Your task to perform on an android device: open a new tab in the chrome app Image 0: 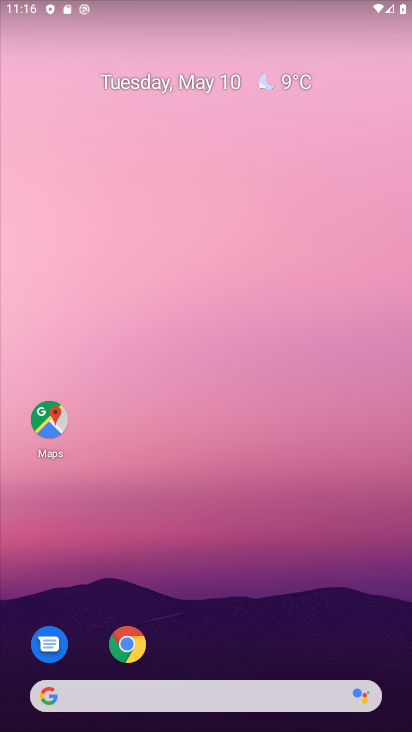
Step 0: drag from (279, 669) to (325, 123)
Your task to perform on an android device: open a new tab in the chrome app Image 1: 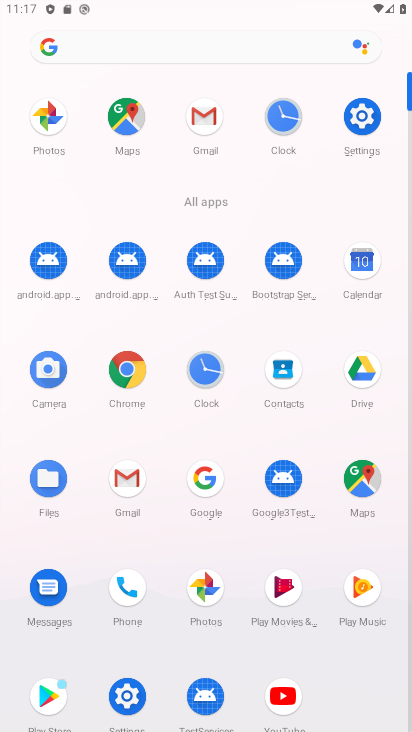
Step 1: click (133, 357)
Your task to perform on an android device: open a new tab in the chrome app Image 2: 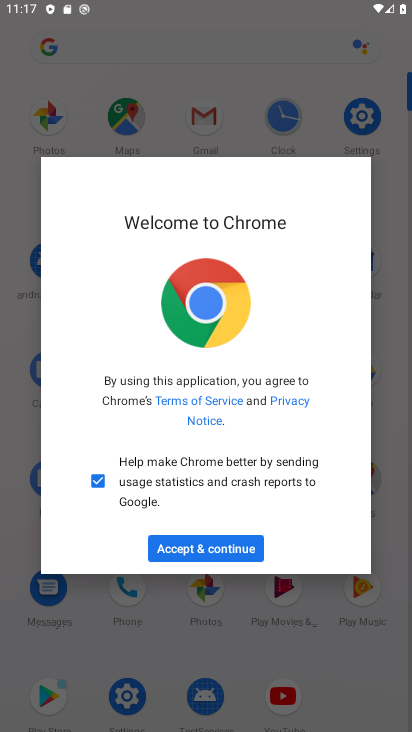
Step 2: click (231, 556)
Your task to perform on an android device: open a new tab in the chrome app Image 3: 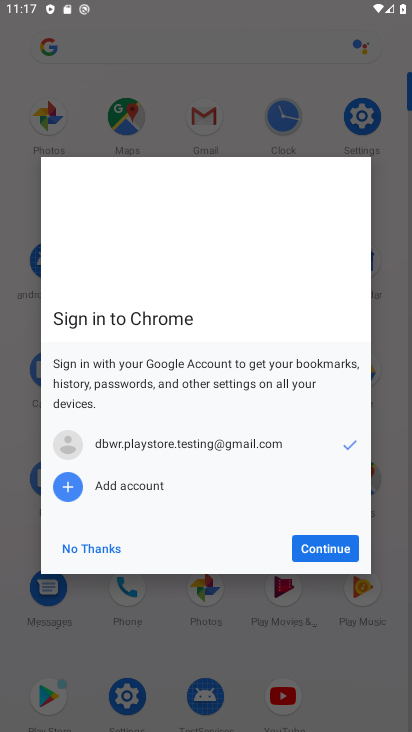
Step 3: click (311, 549)
Your task to perform on an android device: open a new tab in the chrome app Image 4: 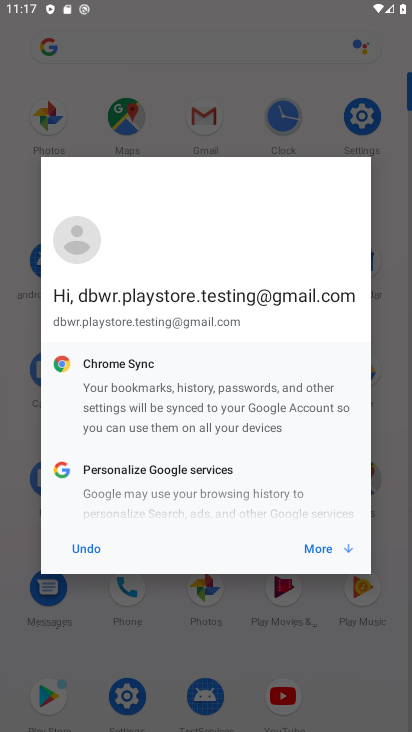
Step 4: click (313, 547)
Your task to perform on an android device: open a new tab in the chrome app Image 5: 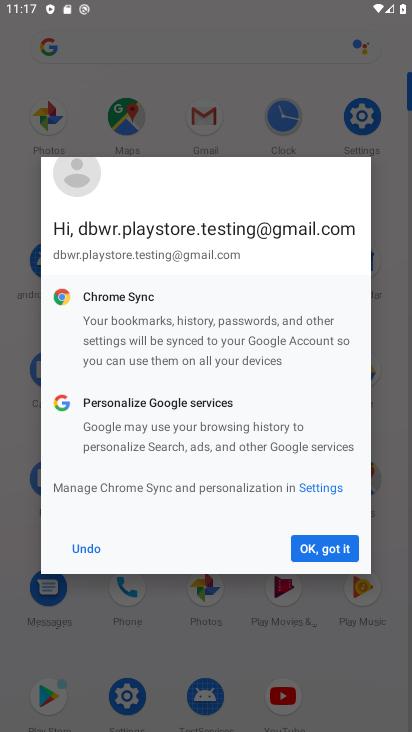
Step 5: click (313, 547)
Your task to perform on an android device: open a new tab in the chrome app Image 6: 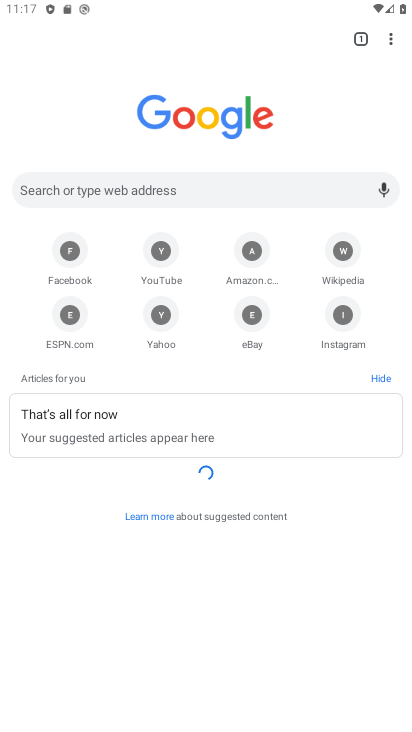
Step 6: click (396, 40)
Your task to perform on an android device: open a new tab in the chrome app Image 7: 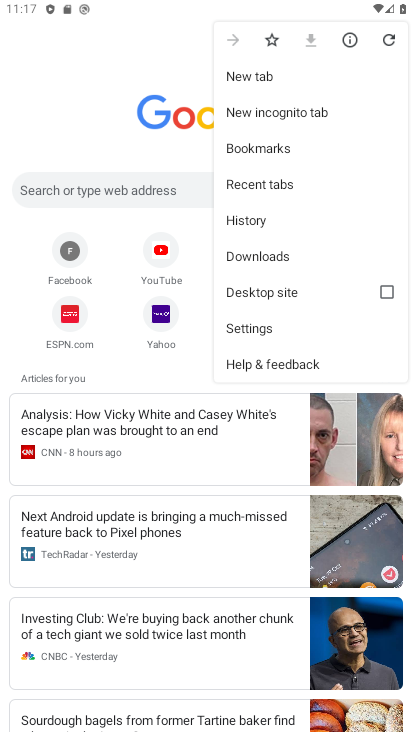
Step 7: click (248, 73)
Your task to perform on an android device: open a new tab in the chrome app Image 8: 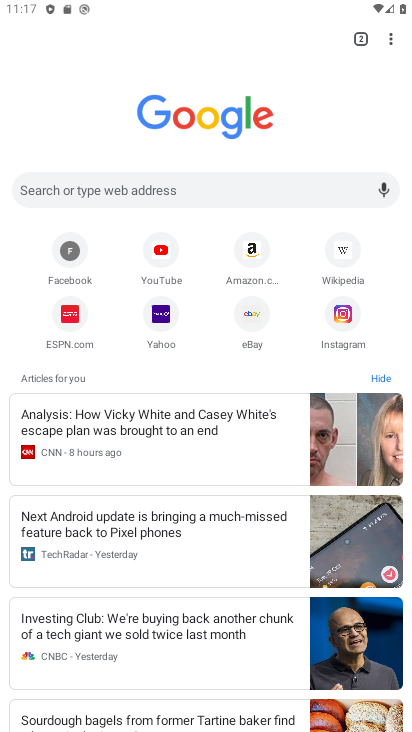
Step 8: task complete